Your task to perform on an android device: What is the capital of Norway? Image 0: 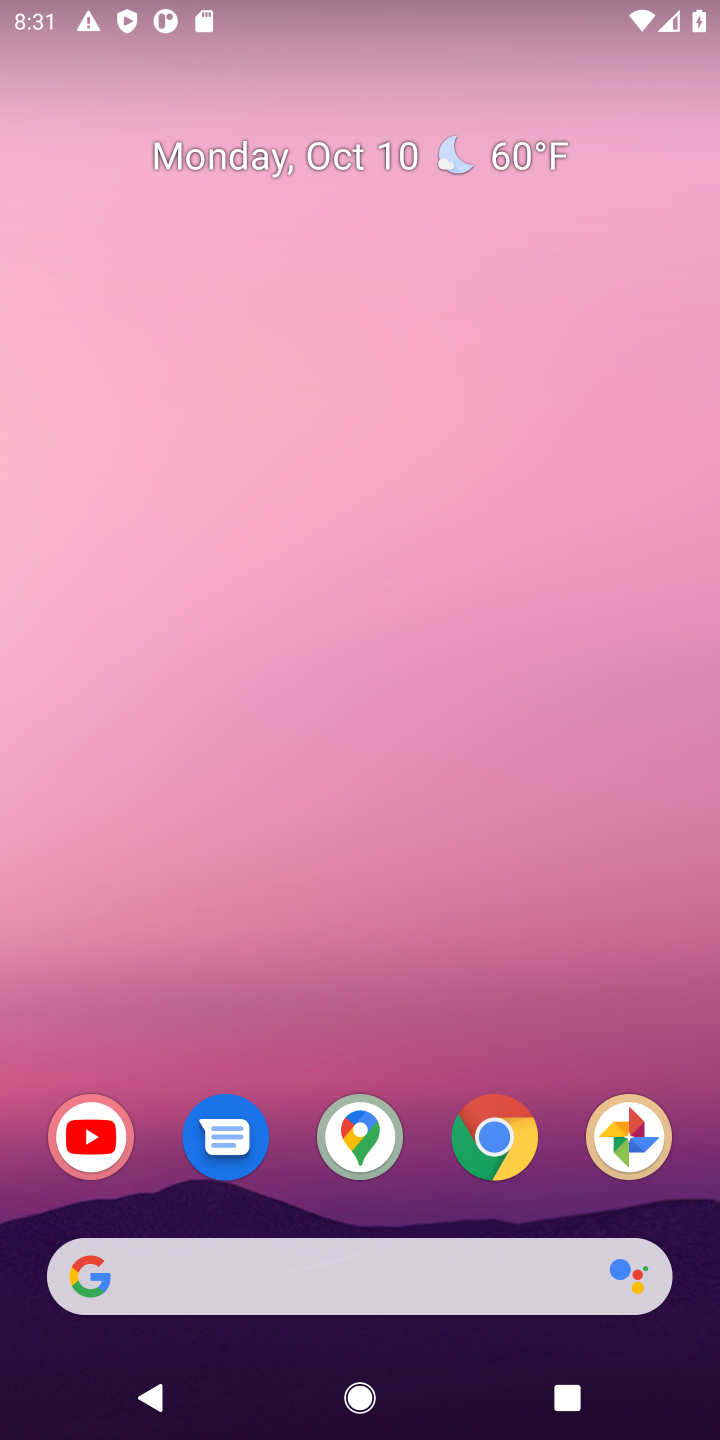
Step 0: click (494, 1141)
Your task to perform on an android device: What is the capital of Norway? Image 1: 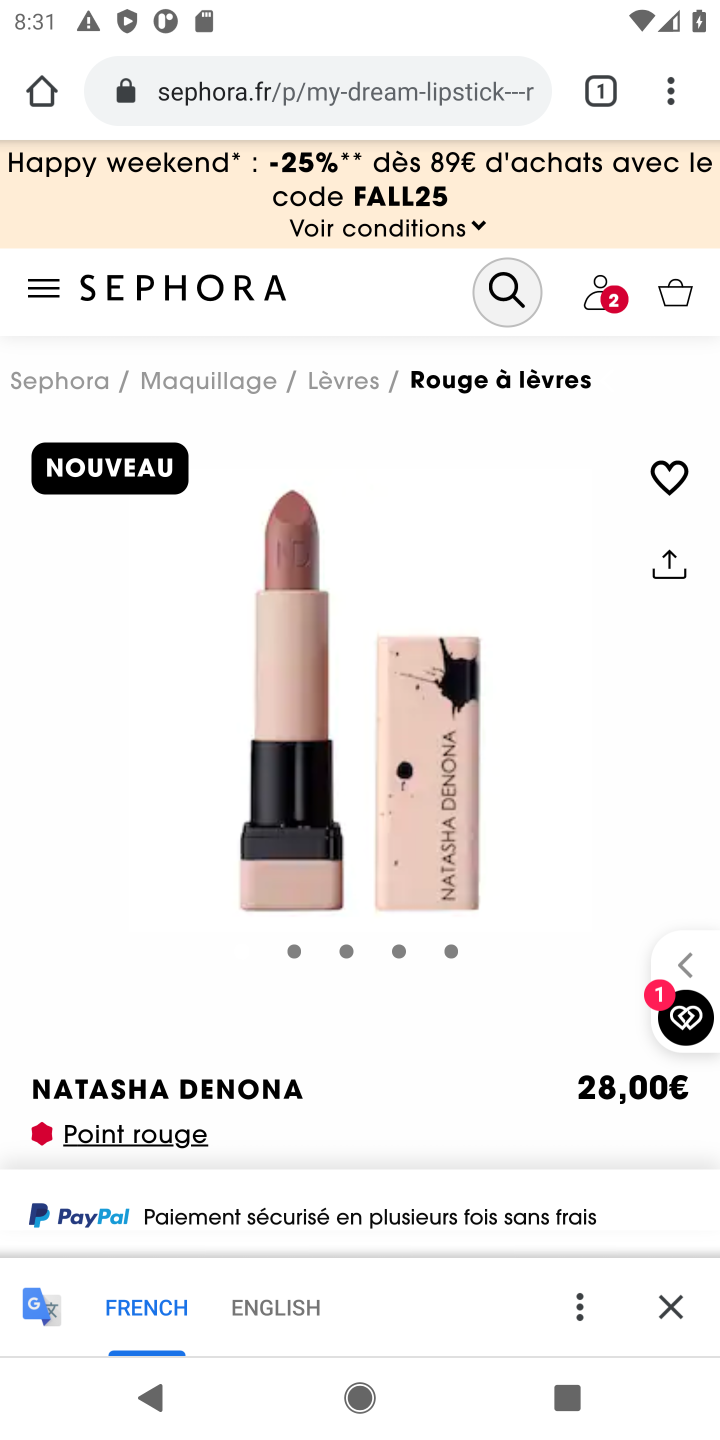
Step 1: click (282, 64)
Your task to perform on an android device: What is the capital of Norway? Image 2: 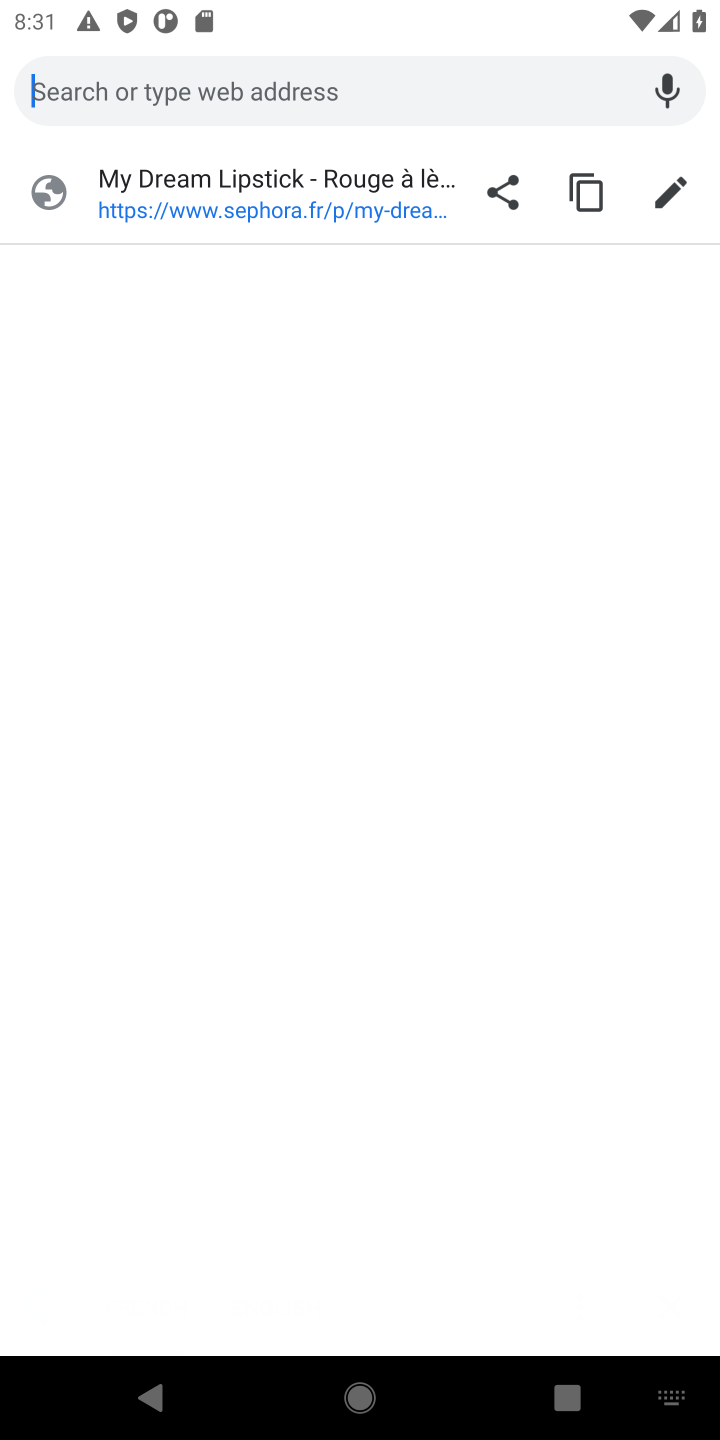
Step 2: type "capital of norway?"
Your task to perform on an android device: What is the capital of Norway? Image 3: 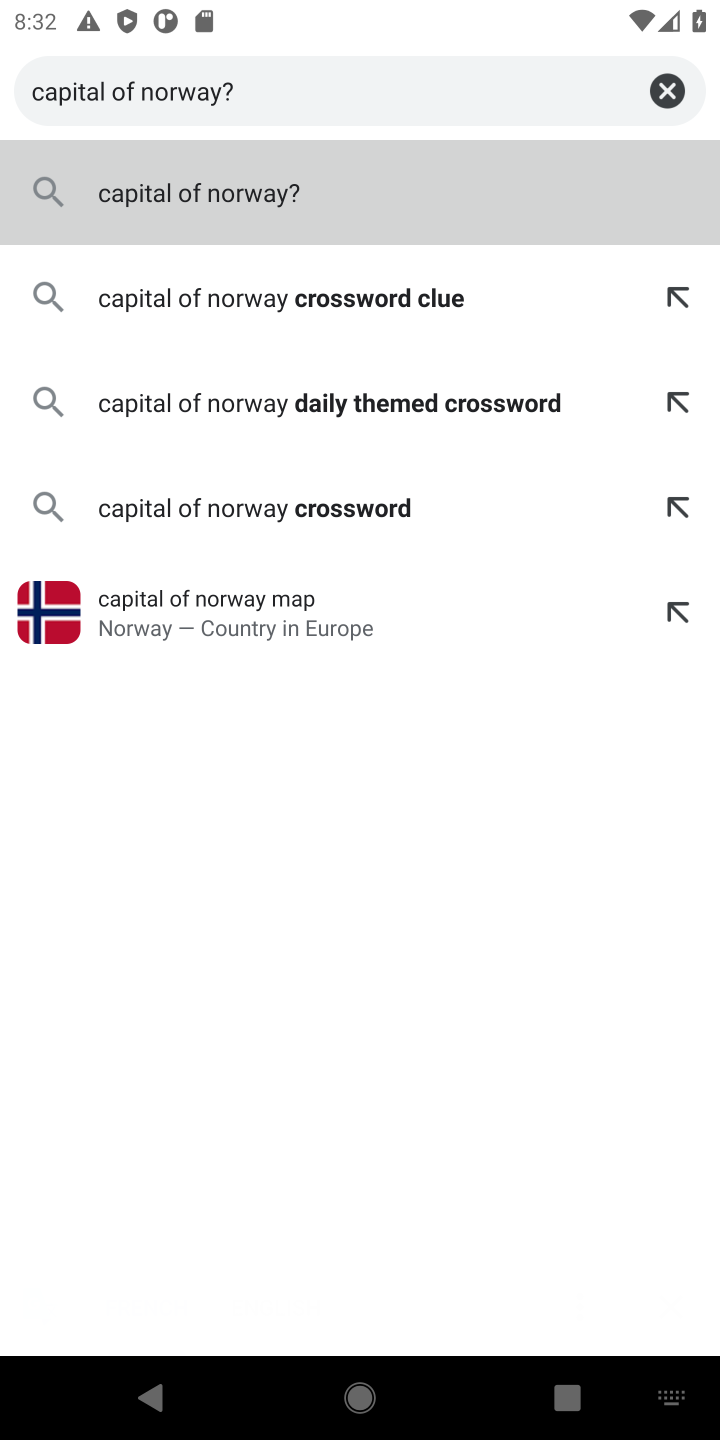
Step 3: click (200, 198)
Your task to perform on an android device: What is the capital of Norway? Image 4: 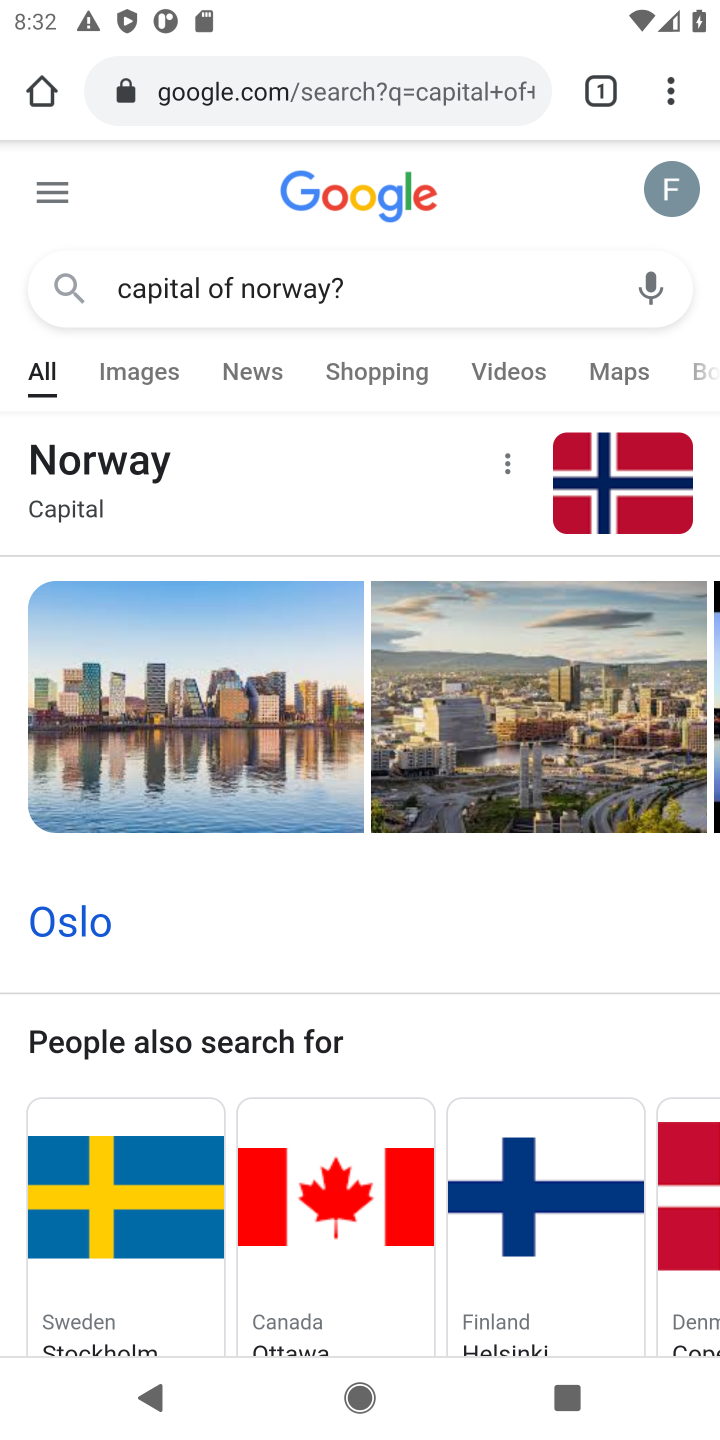
Step 4: task complete